Your task to perform on an android device: Open Google Chrome Image 0: 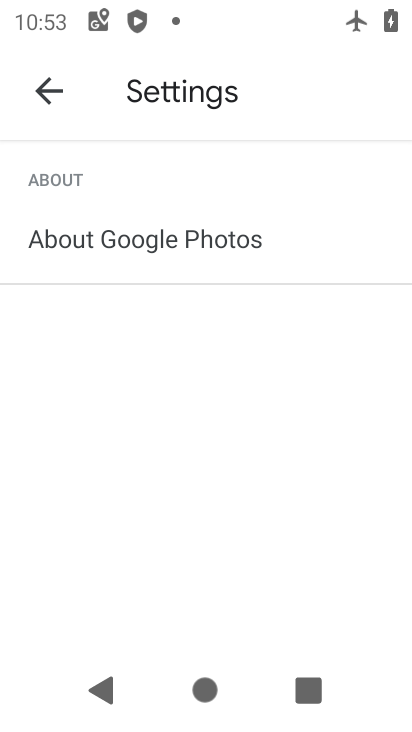
Step 0: press home button
Your task to perform on an android device: Open Google Chrome Image 1: 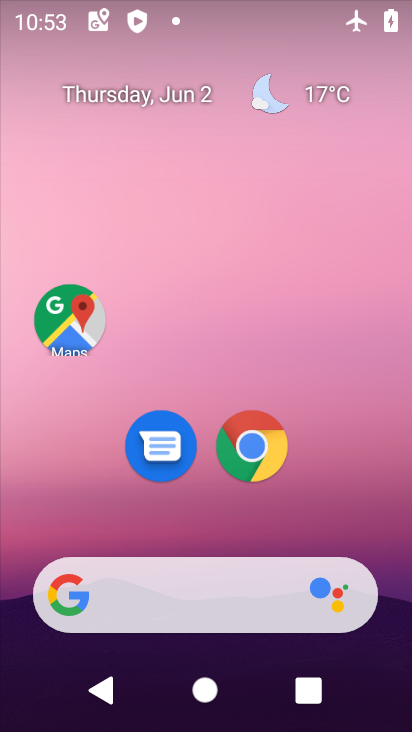
Step 1: drag from (368, 509) to (369, 167)
Your task to perform on an android device: Open Google Chrome Image 2: 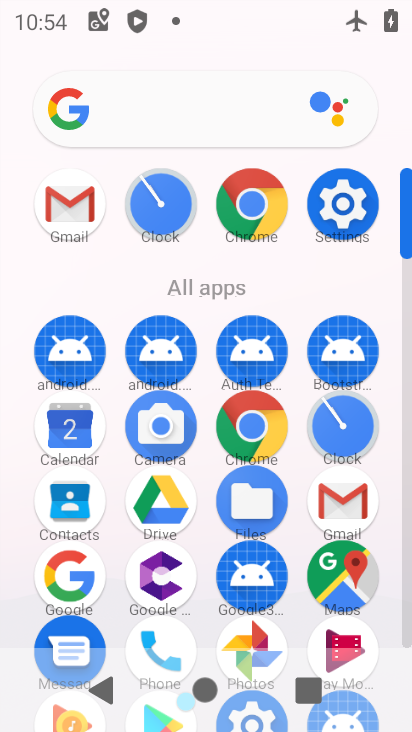
Step 2: click (262, 436)
Your task to perform on an android device: Open Google Chrome Image 3: 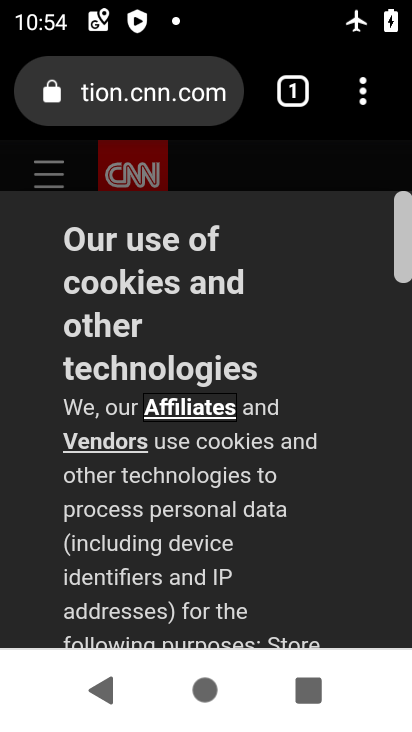
Step 3: task complete